Your task to perform on an android device: turn vacation reply on in the gmail app Image 0: 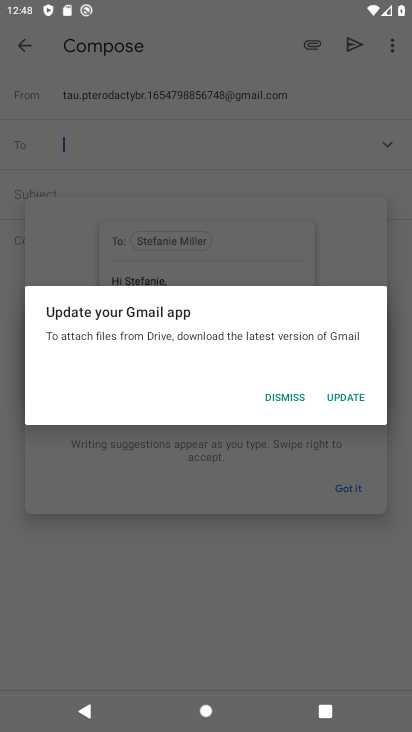
Step 0: press home button
Your task to perform on an android device: turn vacation reply on in the gmail app Image 1: 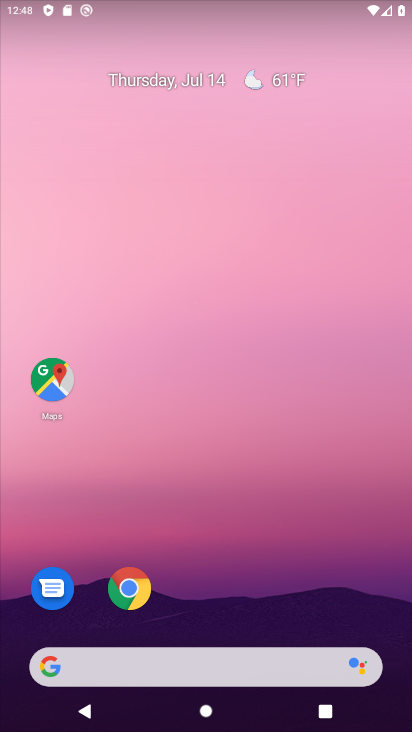
Step 1: drag from (198, 597) to (281, 205)
Your task to perform on an android device: turn vacation reply on in the gmail app Image 2: 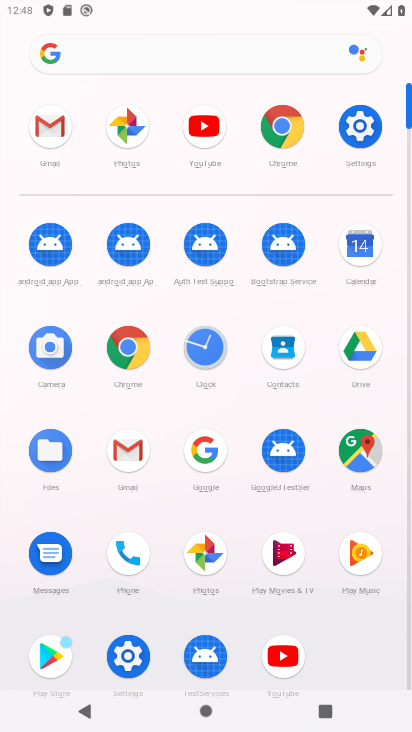
Step 2: click (135, 436)
Your task to perform on an android device: turn vacation reply on in the gmail app Image 3: 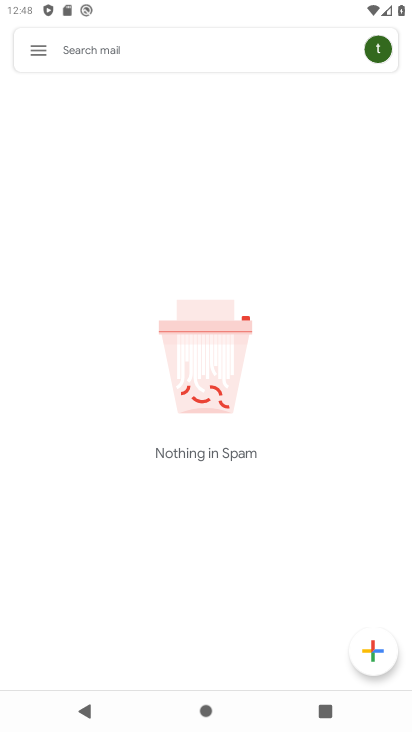
Step 3: click (26, 44)
Your task to perform on an android device: turn vacation reply on in the gmail app Image 4: 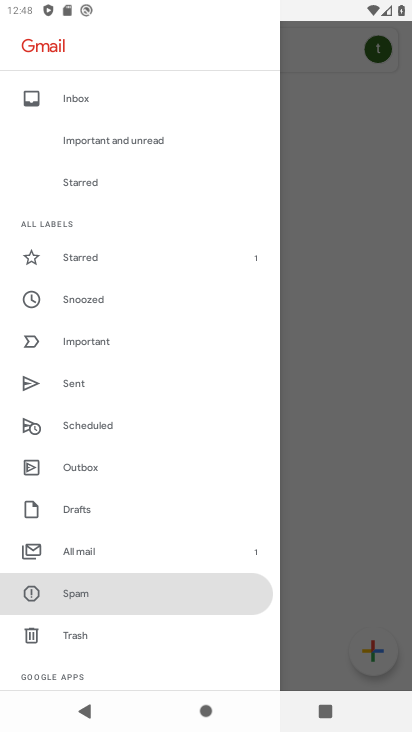
Step 4: drag from (143, 564) to (156, 255)
Your task to perform on an android device: turn vacation reply on in the gmail app Image 5: 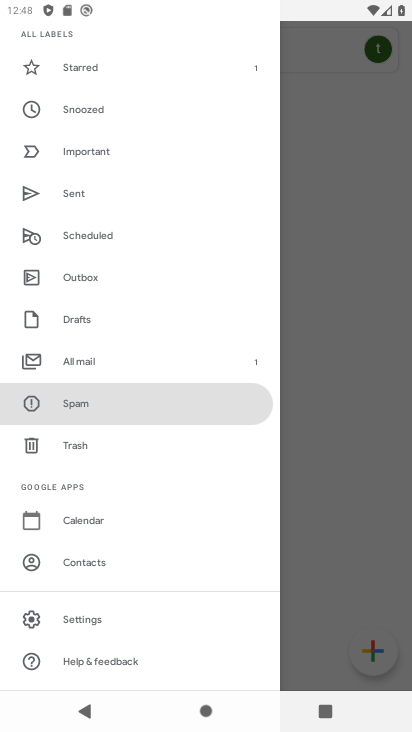
Step 5: click (107, 611)
Your task to perform on an android device: turn vacation reply on in the gmail app Image 6: 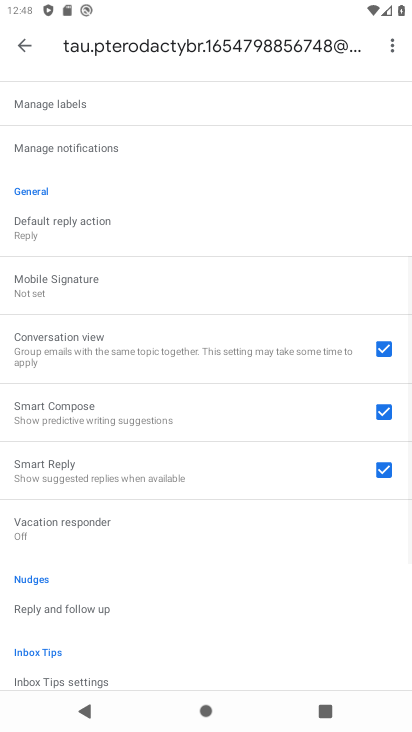
Step 6: click (121, 546)
Your task to perform on an android device: turn vacation reply on in the gmail app Image 7: 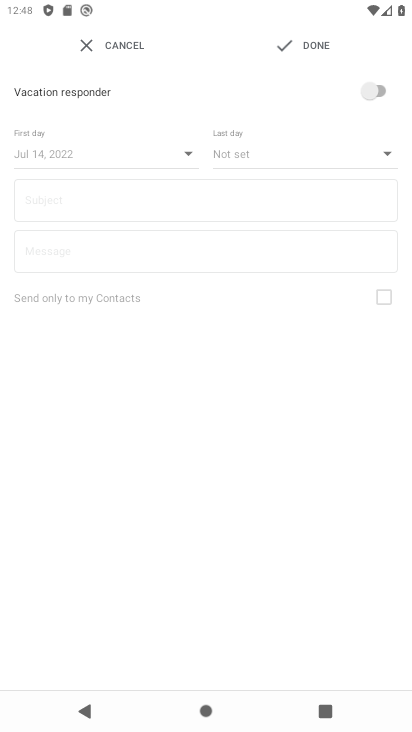
Step 7: click (372, 77)
Your task to perform on an android device: turn vacation reply on in the gmail app Image 8: 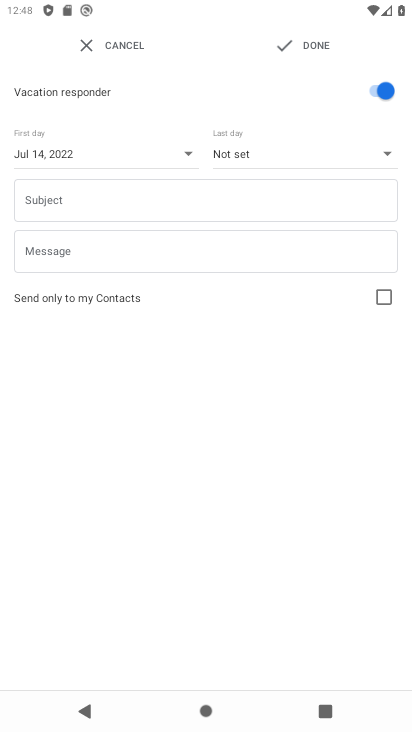
Step 8: task complete